Your task to perform on an android device: check battery use Image 0: 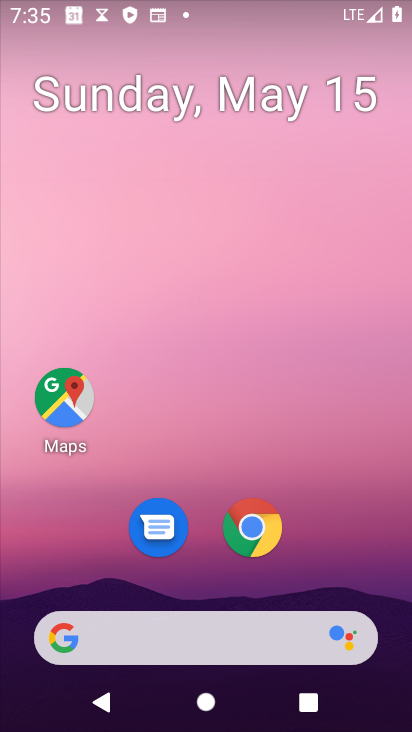
Step 0: drag from (372, 498) to (340, 109)
Your task to perform on an android device: check battery use Image 1: 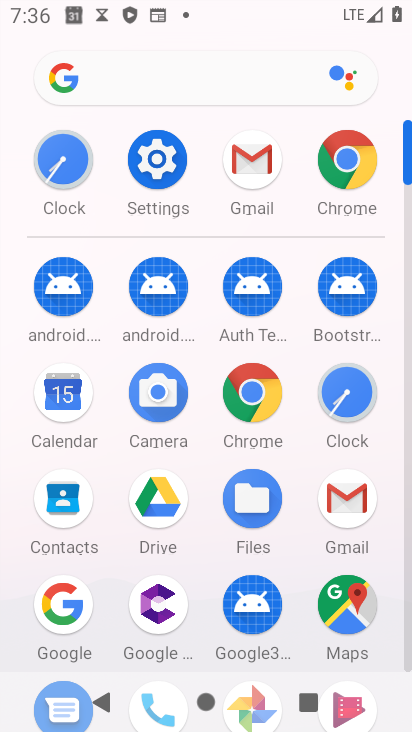
Step 1: click (150, 134)
Your task to perform on an android device: check battery use Image 2: 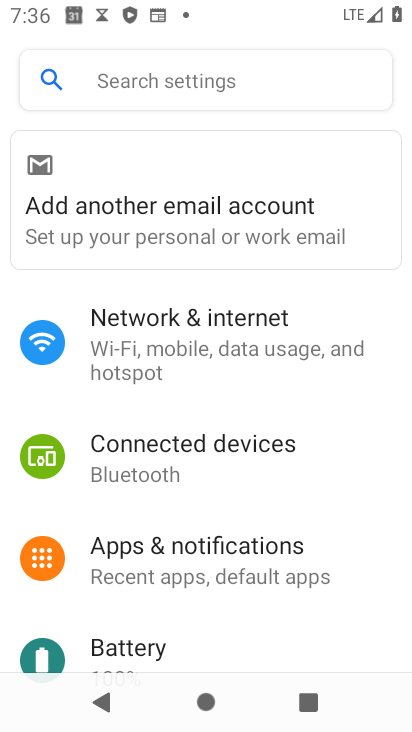
Step 2: drag from (259, 592) to (250, 181)
Your task to perform on an android device: check battery use Image 3: 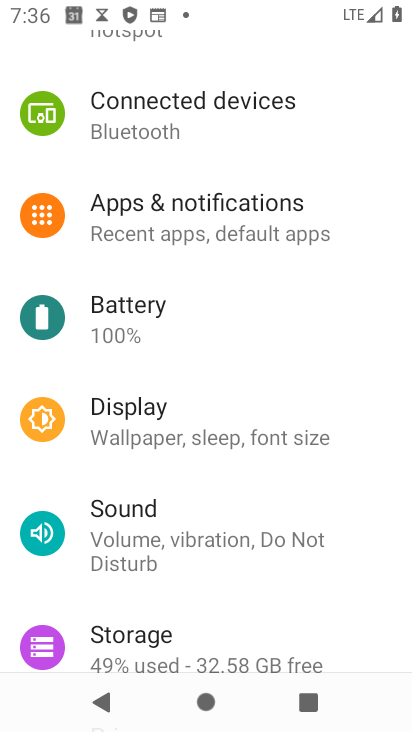
Step 3: click (165, 316)
Your task to perform on an android device: check battery use Image 4: 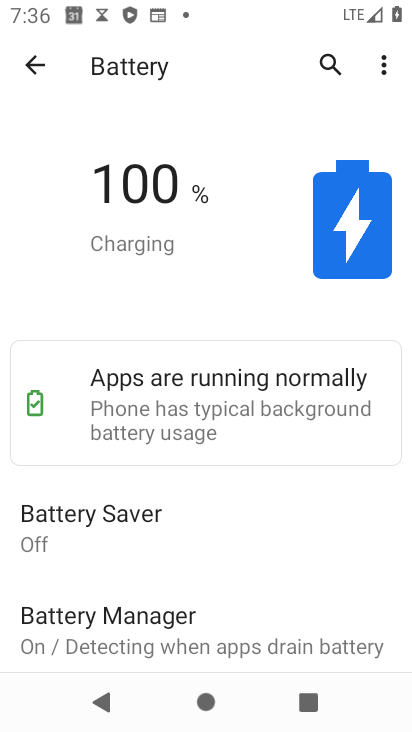
Step 4: task complete